Your task to perform on an android device: Go to network settings Image 0: 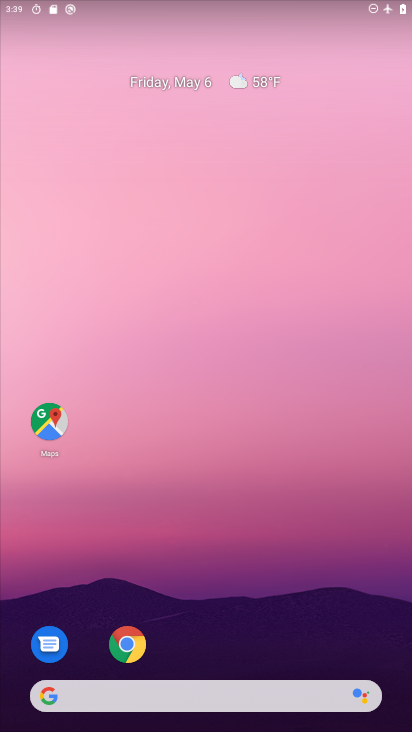
Step 0: drag from (217, 729) to (194, 152)
Your task to perform on an android device: Go to network settings Image 1: 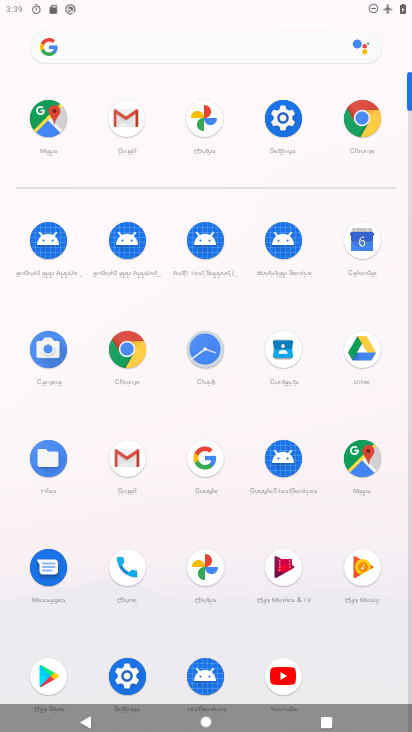
Step 1: click (285, 123)
Your task to perform on an android device: Go to network settings Image 2: 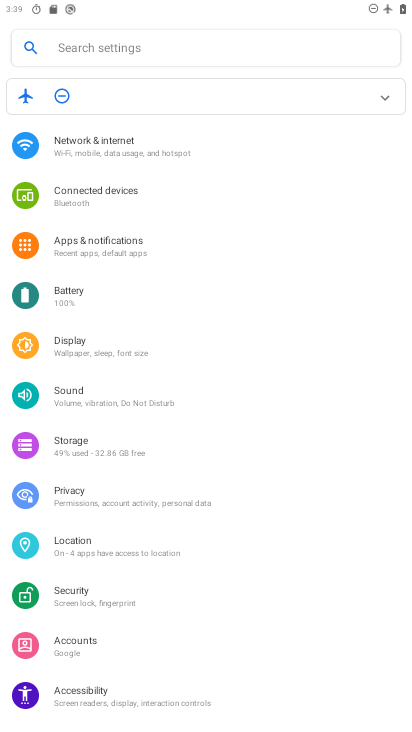
Step 2: click (82, 154)
Your task to perform on an android device: Go to network settings Image 3: 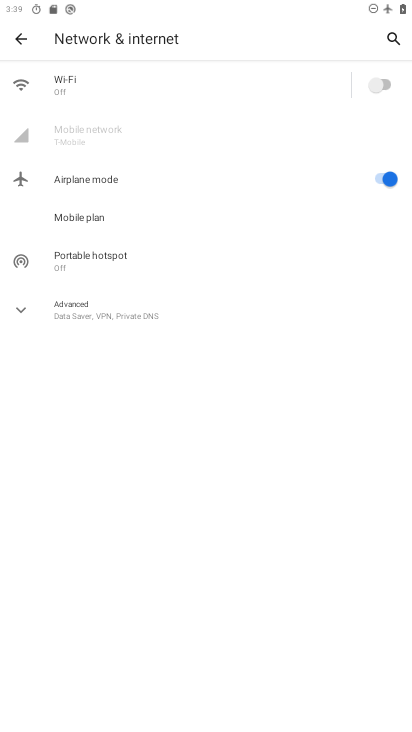
Step 3: task complete